Your task to perform on an android device: turn off javascript in the chrome app Image 0: 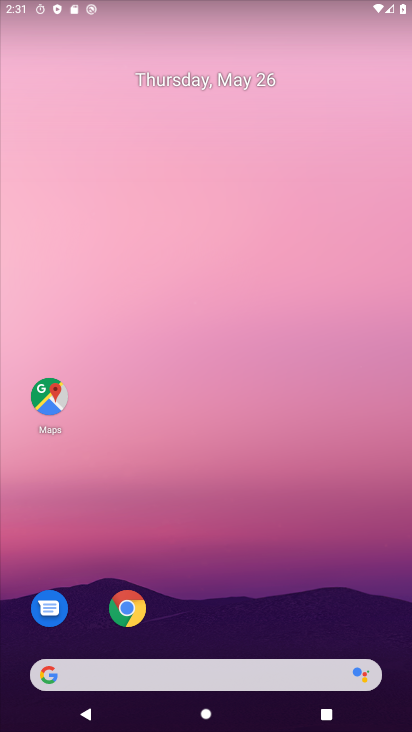
Step 0: drag from (333, 709) to (259, 134)
Your task to perform on an android device: turn off javascript in the chrome app Image 1: 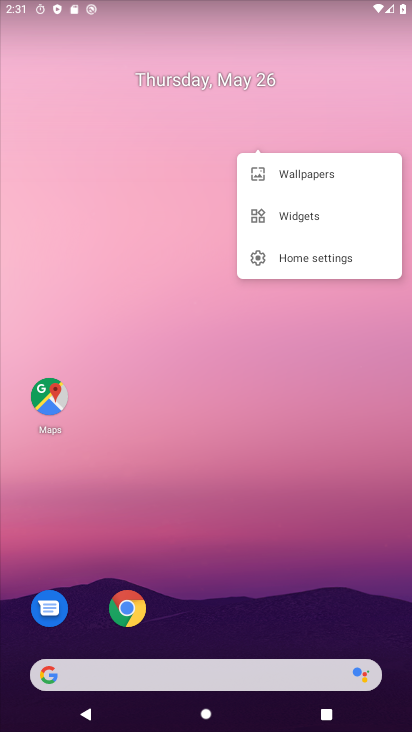
Step 1: drag from (267, 718) to (211, 8)
Your task to perform on an android device: turn off javascript in the chrome app Image 2: 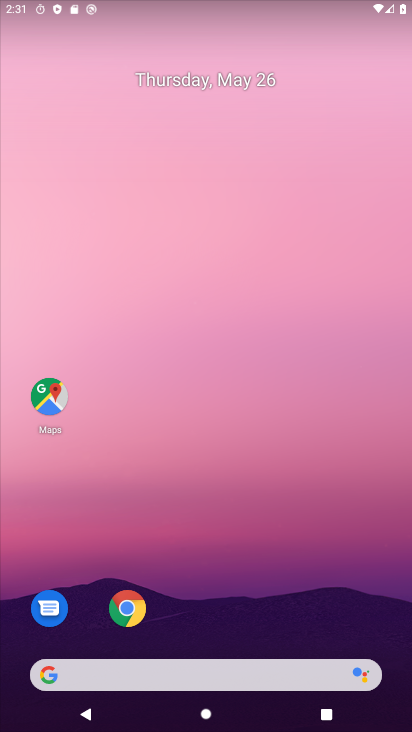
Step 2: drag from (282, 635) to (228, 144)
Your task to perform on an android device: turn off javascript in the chrome app Image 3: 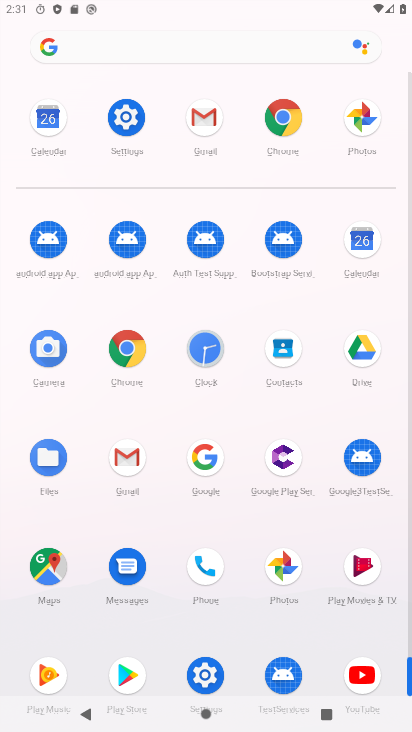
Step 3: click (288, 121)
Your task to perform on an android device: turn off javascript in the chrome app Image 4: 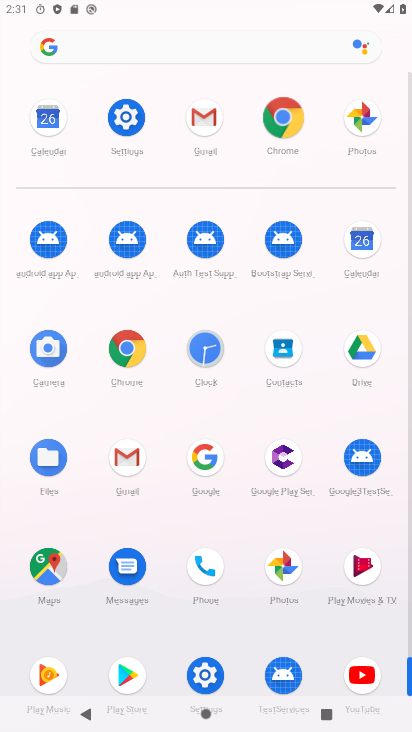
Step 4: click (288, 121)
Your task to perform on an android device: turn off javascript in the chrome app Image 5: 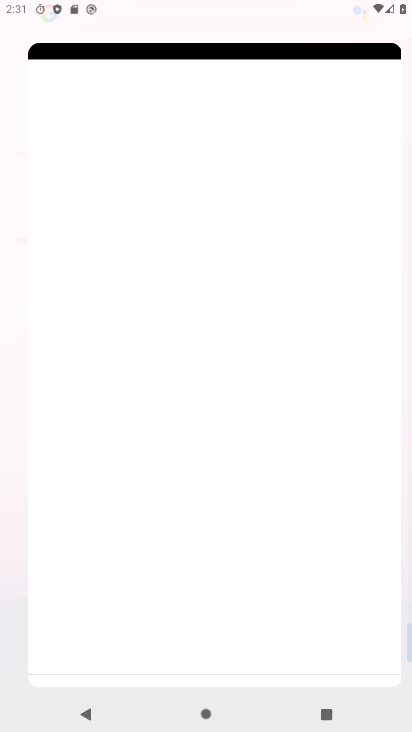
Step 5: click (288, 121)
Your task to perform on an android device: turn off javascript in the chrome app Image 6: 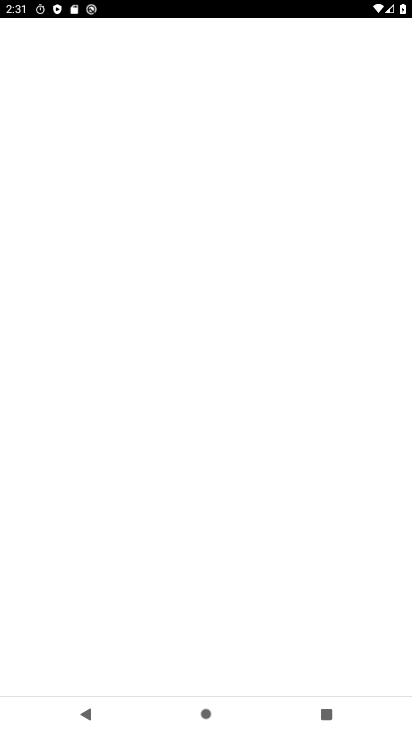
Step 6: click (283, 129)
Your task to perform on an android device: turn off javascript in the chrome app Image 7: 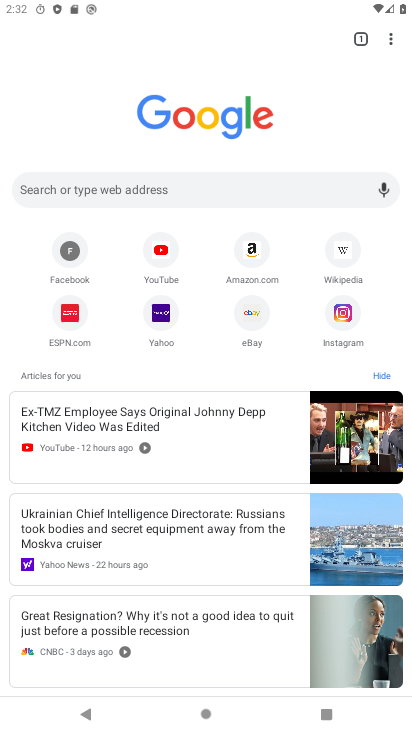
Step 7: drag from (394, 36) to (257, 360)
Your task to perform on an android device: turn off javascript in the chrome app Image 8: 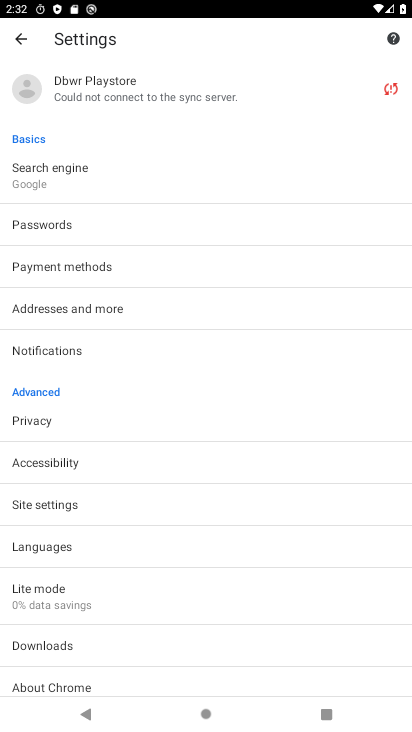
Step 8: click (29, 504)
Your task to perform on an android device: turn off javascript in the chrome app Image 9: 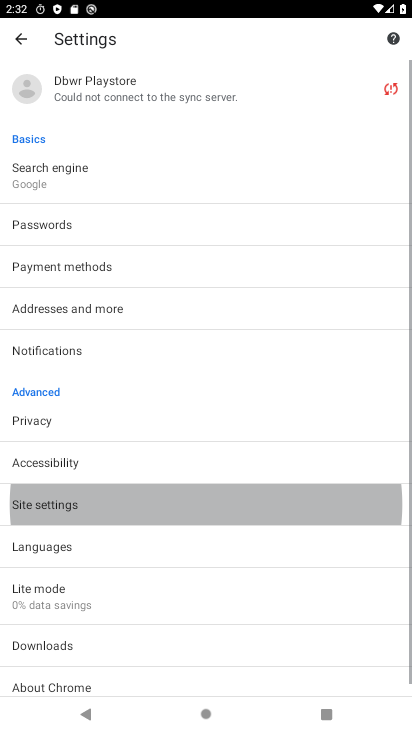
Step 9: click (34, 500)
Your task to perform on an android device: turn off javascript in the chrome app Image 10: 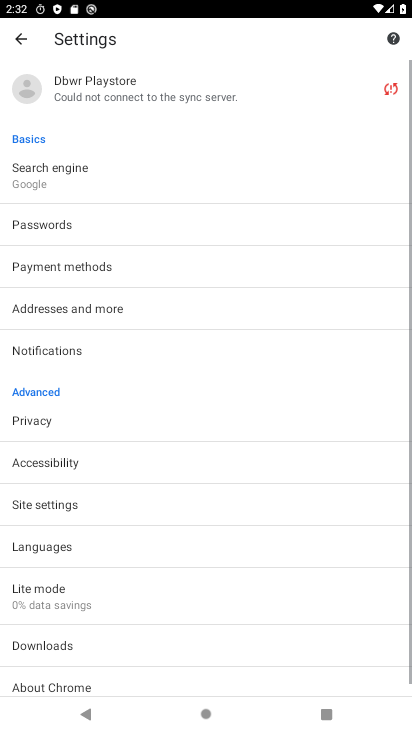
Step 10: click (38, 499)
Your task to perform on an android device: turn off javascript in the chrome app Image 11: 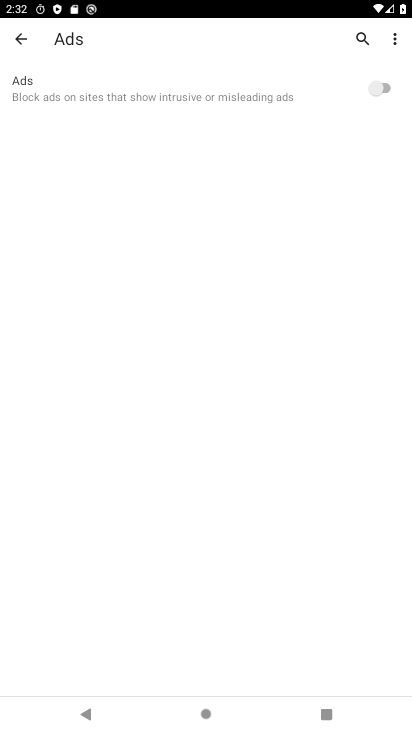
Step 11: click (20, 38)
Your task to perform on an android device: turn off javascript in the chrome app Image 12: 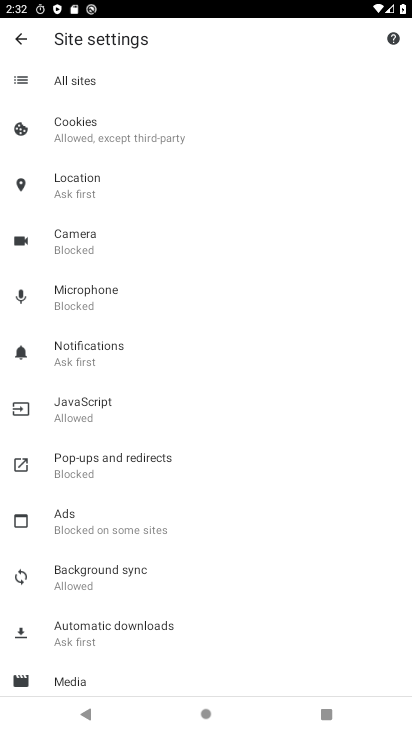
Step 12: click (63, 415)
Your task to perform on an android device: turn off javascript in the chrome app Image 13: 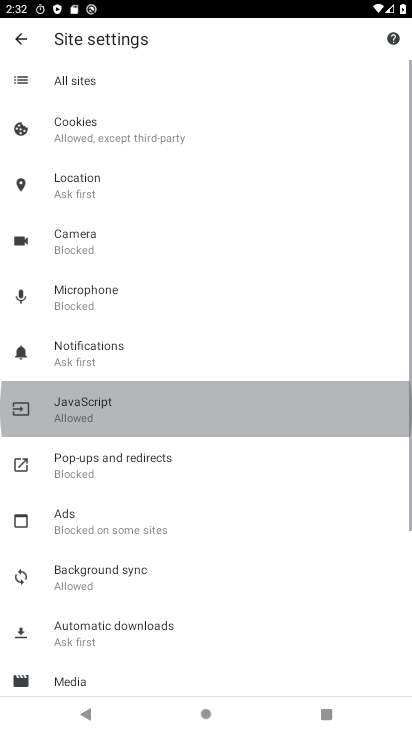
Step 13: click (70, 408)
Your task to perform on an android device: turn off javascript in the chrome app Image 14: 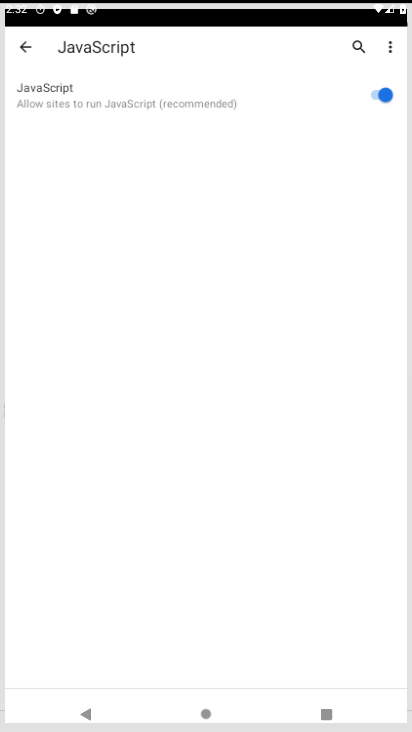
Step 14: click (70, 408)
Your task to perform on an android device: turn off javascript in the chrome app Image 15: 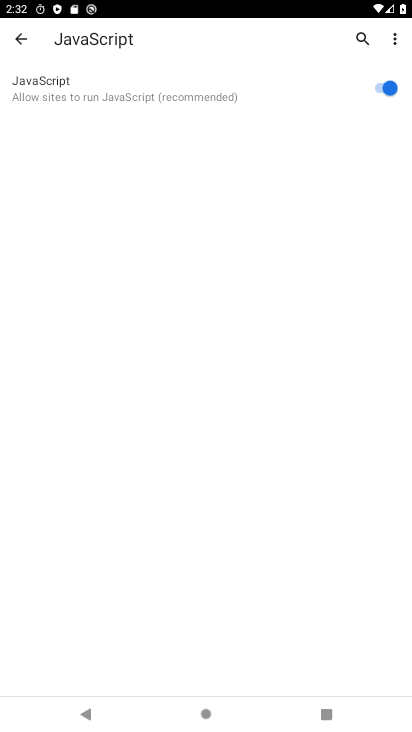
Step 15: click (390, 89)
Your task to perform on an android device: turn off javascript in the chrome app Image 16: 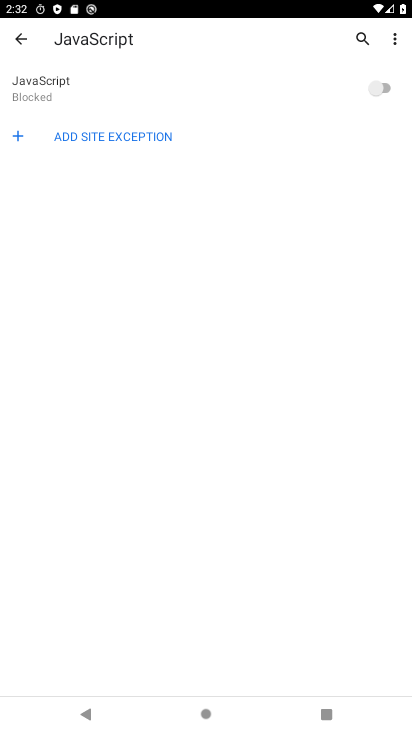
Step 16: task complete